Your task to perform on an android device: turn on the 12-hour format for clock Image 0: 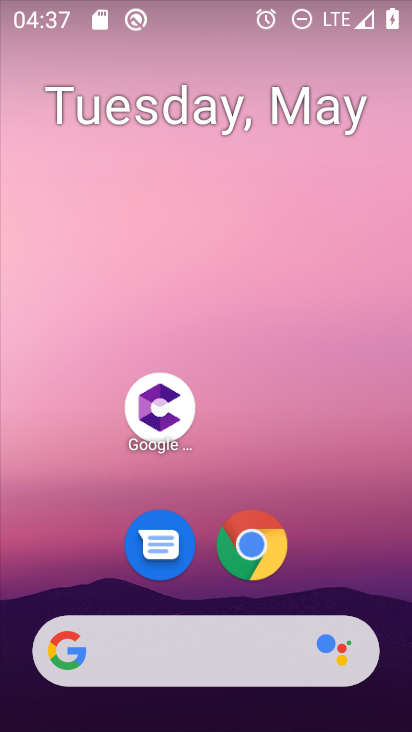
Step 0: drag from (355, 565) to (359, 214)
Your task to perform on an android device: turn on the 12-hour format for clock Image 1: 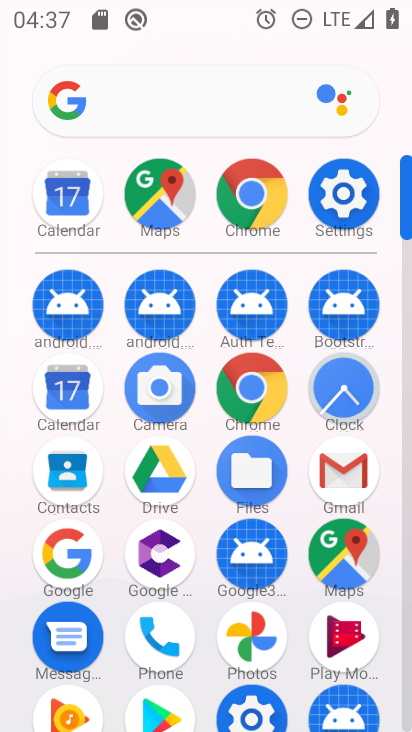
Step 1: click (350, 387)
Your task to perform on an android device: turn on the 12-hour format for clock Image 2: 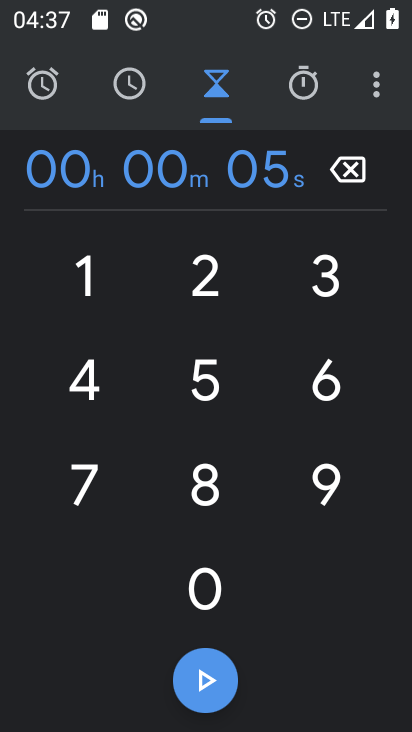
Step 2: click (381, 96)
Your task to perform on an android device: turn on the 12-hour format for clock Image 3: 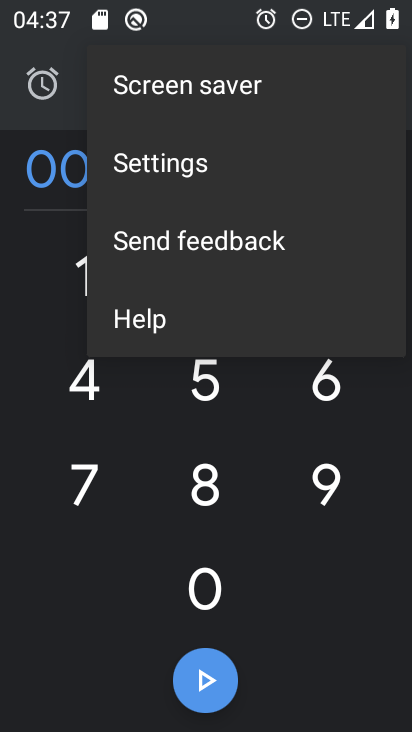
Step 3: click (203, 172)
Your task to perform on an android device: turn on the 12-hour format for clock Image 4: 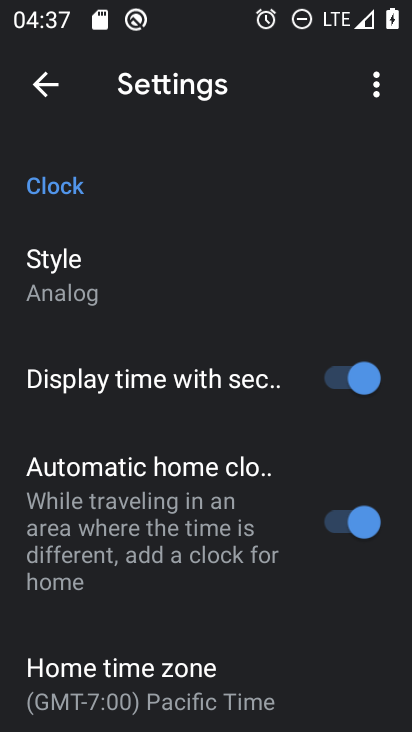
Step 4: drag from (299, 620) to (313, 449)
Your task to perform on an android device: turn on the 12-hour format for clock Image 5: 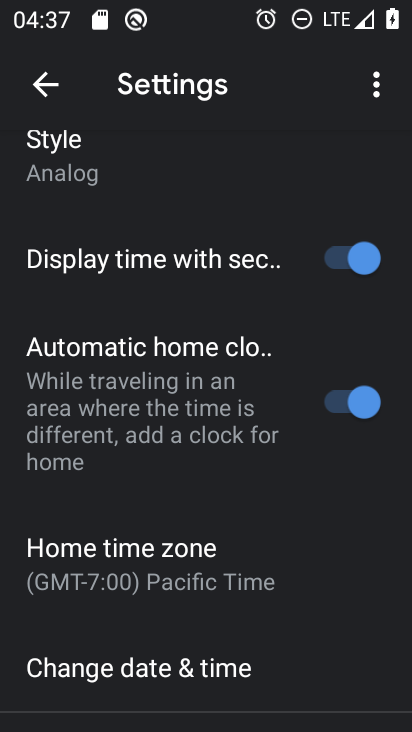
Step 5: drag from (295, 637) to (304, 515)
Your task to perform on an android device: turn on the 12-hour format for clock Image 6: 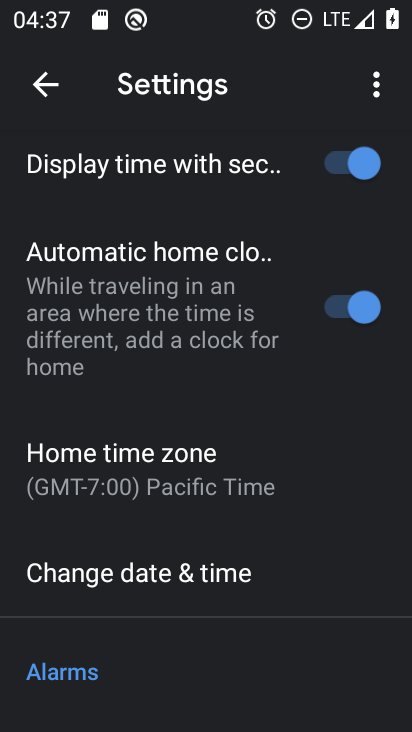
Step 6: drag from (282, 661) to (290, 526)
Your task to perform on an android device: turn on the 12-hour format for clock Image 7: 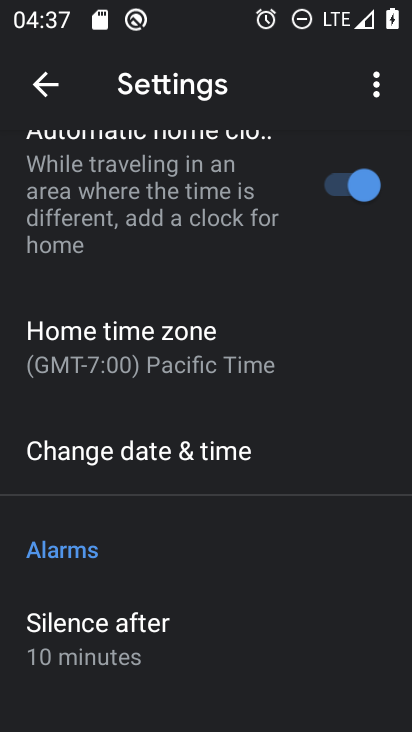
Step 7: drag from (282, 651) to (305, 506)
Your task to perform on an android device: turn on the 12-hour format for clock Image 8: 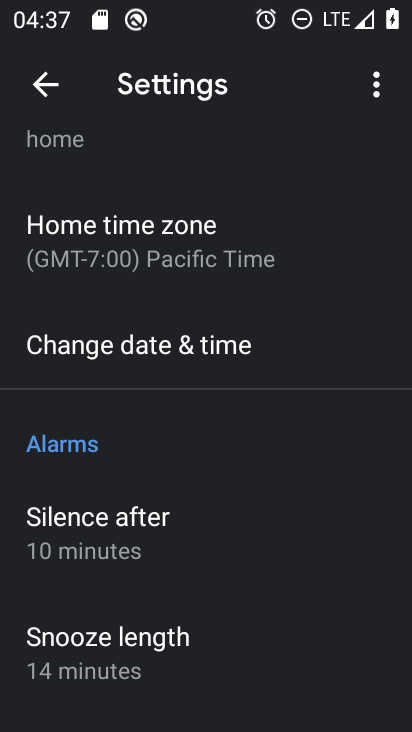
Step 8: click (213, 334)
Your task to perform on an android device: turn on the 12-hour format for clock Image 9: 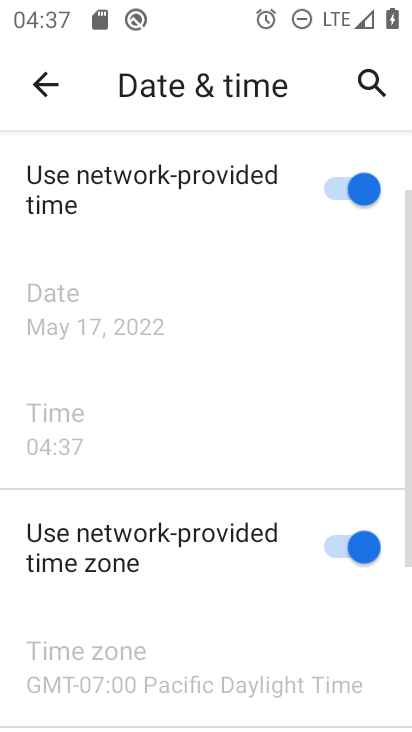
Step 9: drag from (259, 601) to (281, 475)
Your task to perform on an android device: turn on the 12-hour format for clock Image 10: 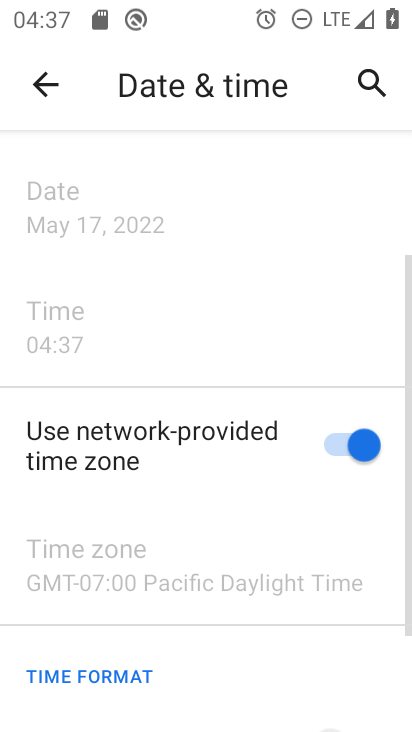
Step 10: drag from (254, 638) to (264, 426)
Your task to perform on an android device: turn on the 12-hour format for clock Image 11: 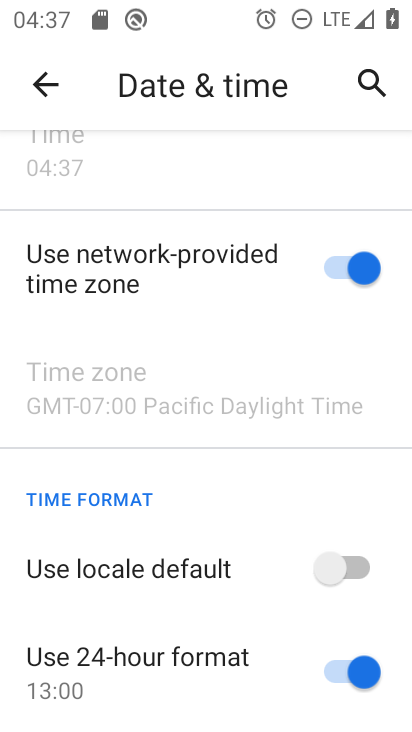
Step 11: drag from (255, 635) to (261, 470)
Your task to perform on an android device: turn on the 12-hour format for clock Image 12: 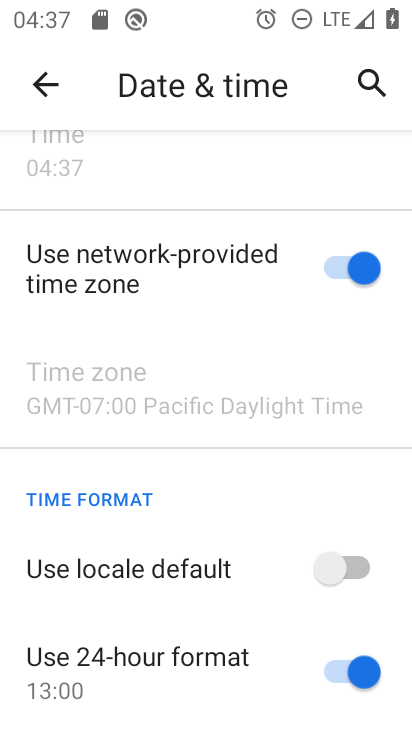
Step 12: click (353, 676)
Your task to perform on an android device: turn on the 12-hour format for clock Image 13: 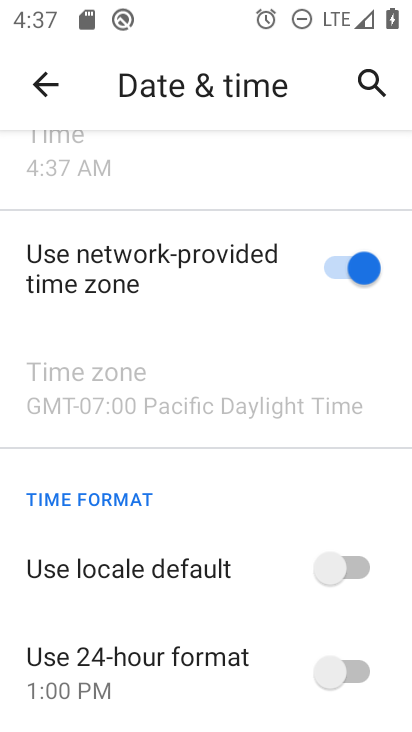
Step 13: task complete